Your task to perform on an android device: Open eBay Image 0: 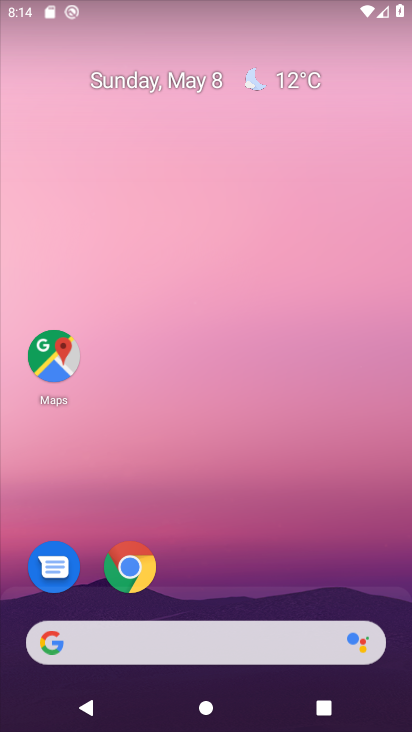
Step 0: drag from (288, 552) to (255, 0)
Your task to perform on an android device: Open eBay Image 1: 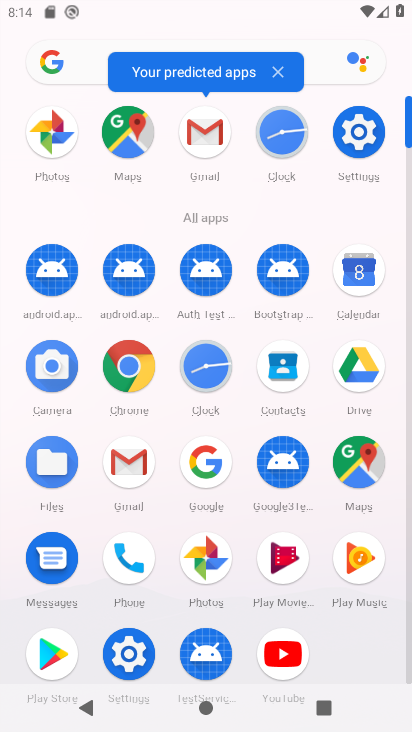
Step 1: click (118, 367)
Your task to perform on an android device: Open eBay Image 2: 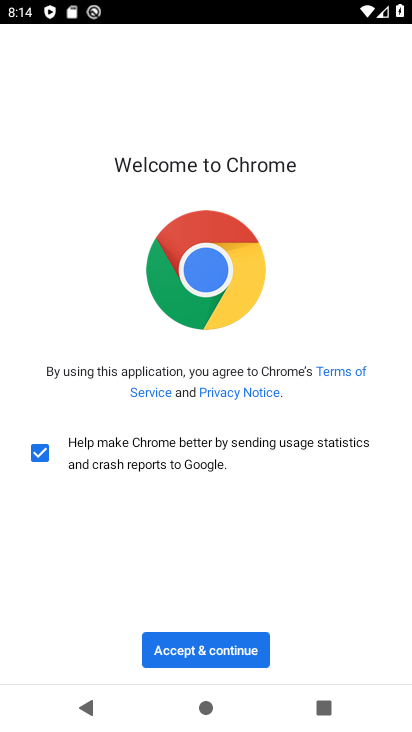
Step 2: click (214, 653)
Your task to perform on an android device: Open eBay Image 3: 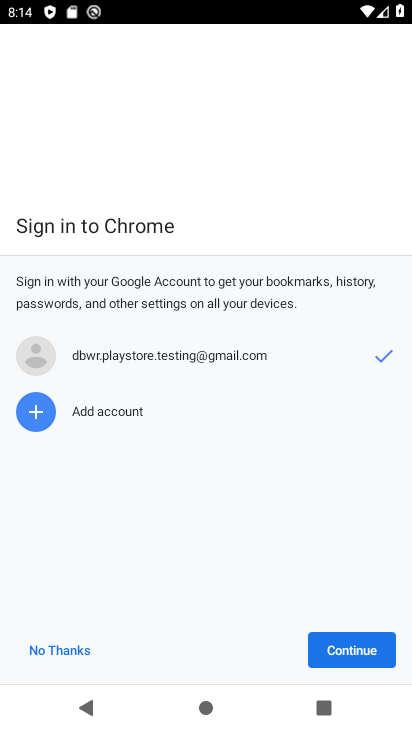
Step 3: click (27, 657)
Your task to perform on an android device: Open eBay Image 4: 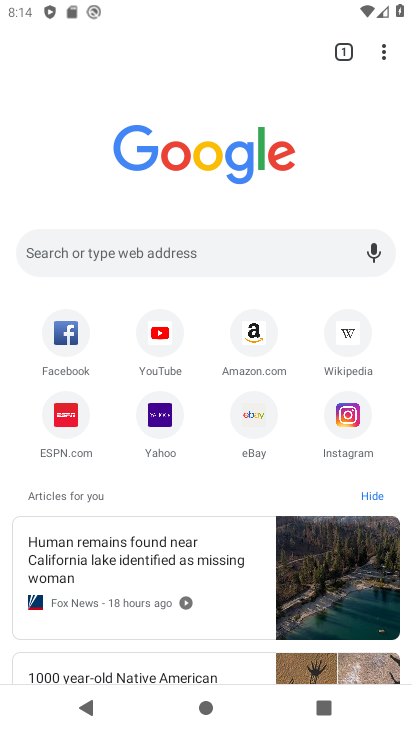
Step 4: click (250, 437)
Your task to perform on an android device: Open eBay Image 5: 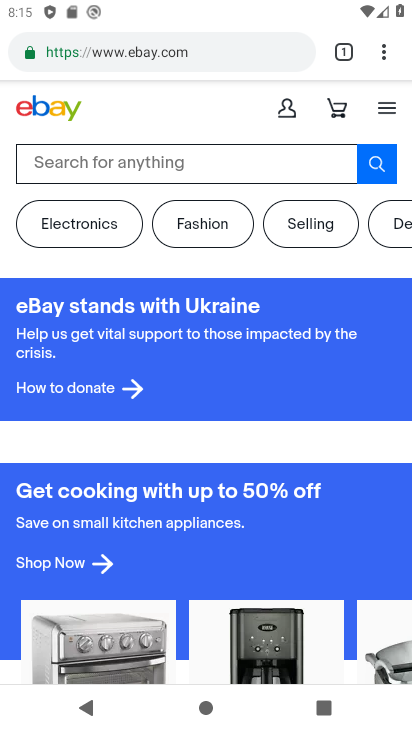
Step 5: task complete